Your task to perform on an android device: Open CNN.com Image 0: 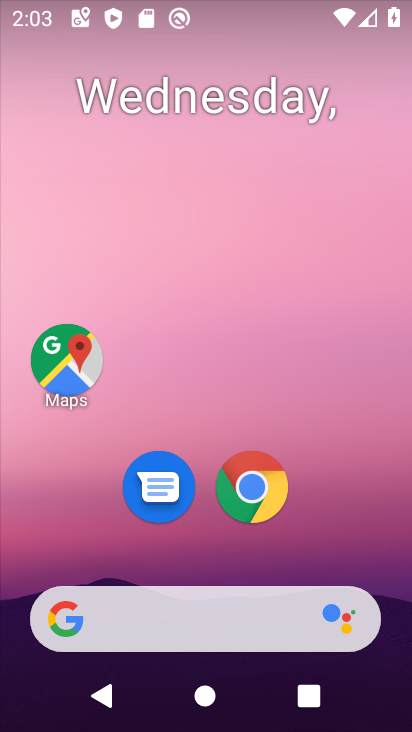
Step 0: click (243, 484)
Your task to perform on an android device: Open CNN.com Image 1: 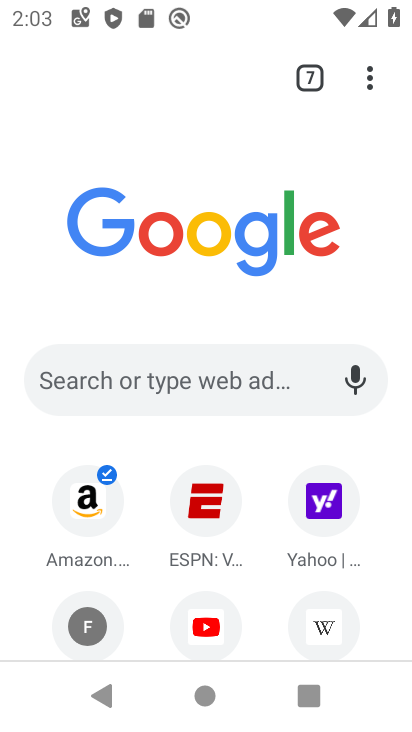
Step 1: click (167, 381)
Your task to perform on an android device: Open CNN.com Image 2: 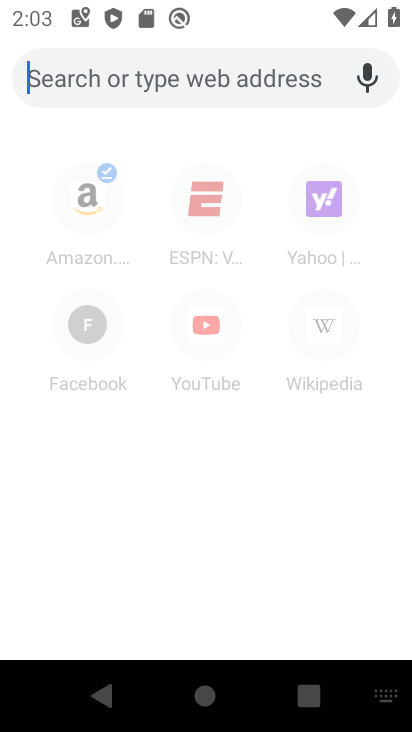
Step 2: type "cnn.com"
Your task to perform on an android device: Open CNN.com Image 3: 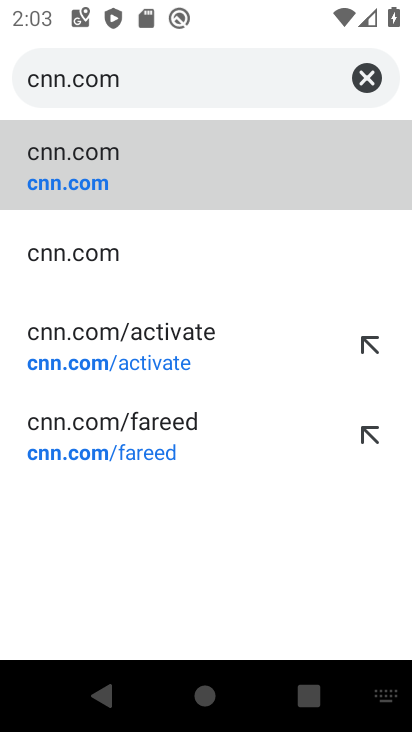
Step 3: click (49, 174)
Your task to perform on an android device: Open CNN.com Image 4: 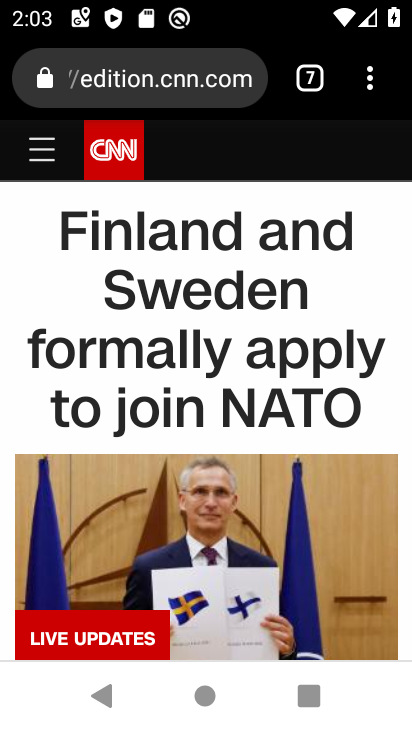
Step 4: task complete